Your task to perform on an android device: create a new album in the google photos Image 0: 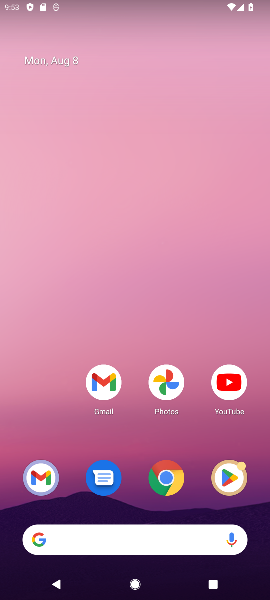
Step 0: drag from (136, 516) to (64, 54)
Your task to perform on an android device: create a new album in the google photos Image 1: 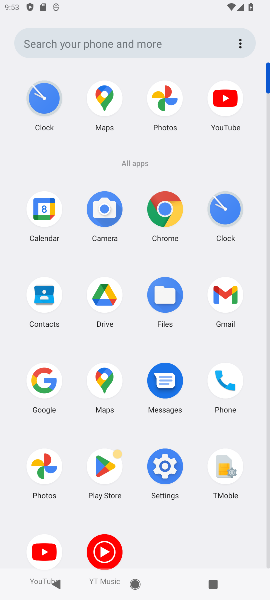
Step 1: click (46, 463)
Your task to perform on an android device: create a new album in the google photos Image 2: 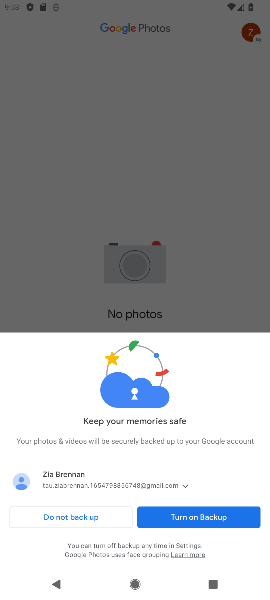
Step 2: click (163, 514)
Your task to perform on an android device: create a new album in the google photos Image 3: 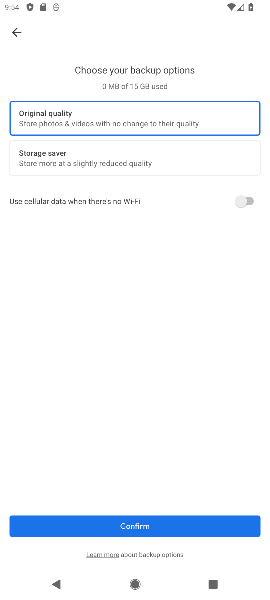
Step 3: click (216, 530)
Your task to perform on an android device: create a new album in the google photos Image 4: 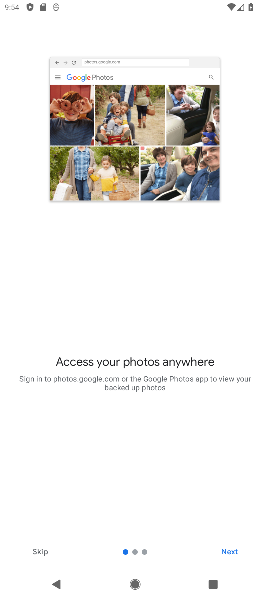
Step 4: click (37, 552)
Your task to perform on an android device: create a new album in the google photos Image 5: 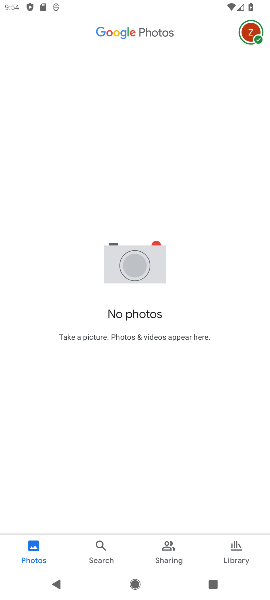
Step 5: click (177, 549)
Your task to perform on an android device: create a new album in the google photos Image 6: 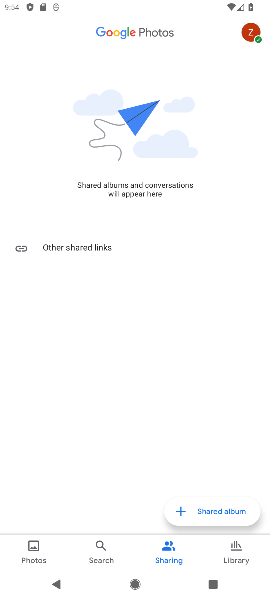
Step 6: click (108, 554)
Your task to perform on an android device: create a new album in the google photos Image 7: 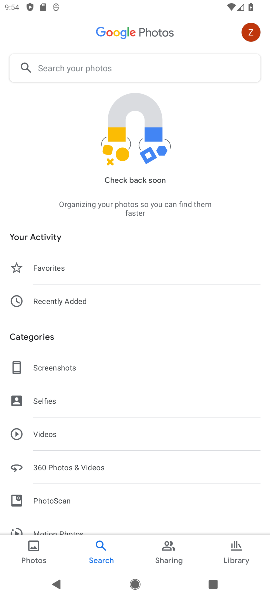
Step 7: click (222, 552)
Your task to perform on an android device: create a new album in the google photos Image 8: 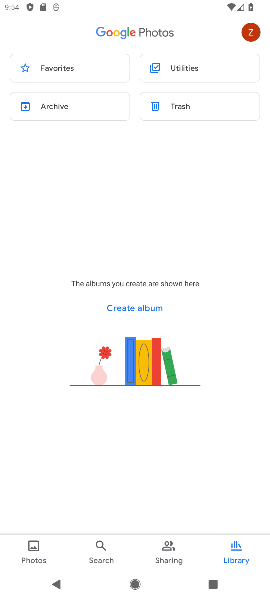
Step 8: task complete